Your task to perform on an android device: toggle wifi Image 0: 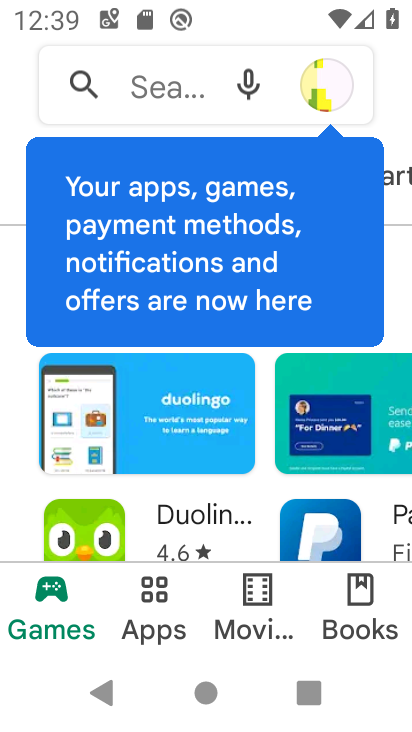
Step 0: press home button
Your task to perform on an android device: toggle wifi Image 1: 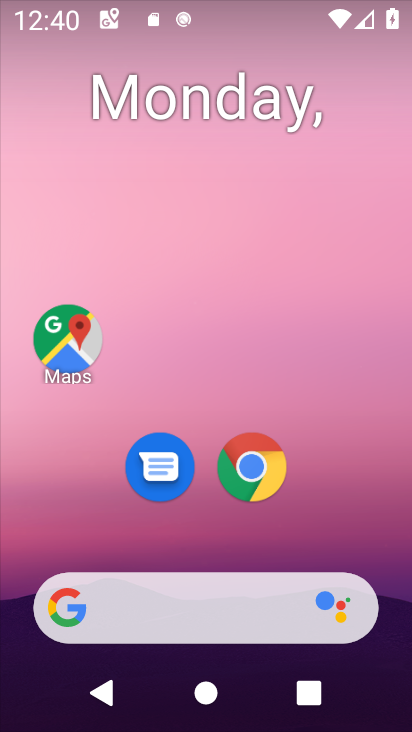
Step 1: drag from (389, 565) to (314, 27)
Your task to perform on an android device: toggle wifi Image 2: 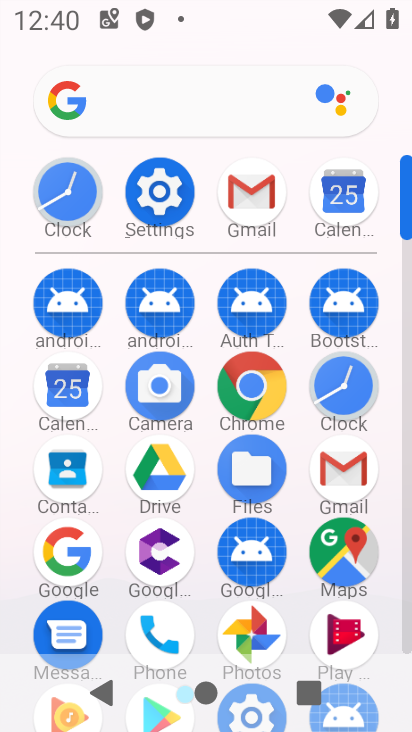
Step 2: click (407, 634)
Your task to perform on an android device: toggle wifi Image 3: 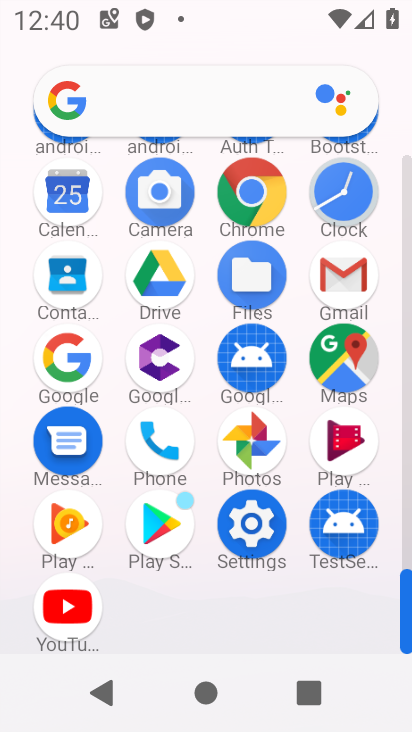
Step 3: click (251, 526)
Your task to perform on an android device: toggle wifi Image 4: 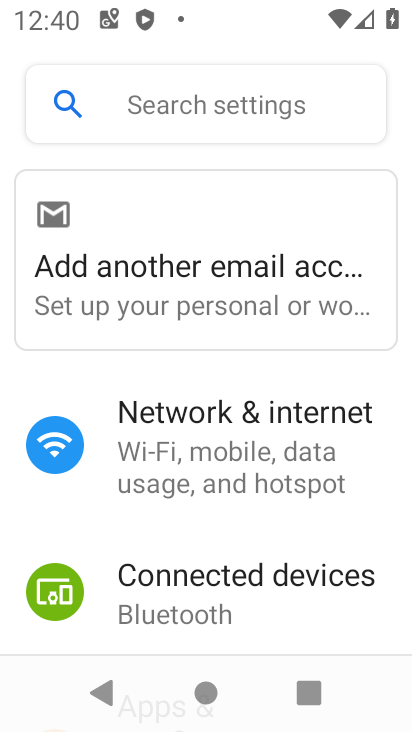
Step 4: click (206, 444)
Your task to perform on an android device: toggle wifi Image 5: 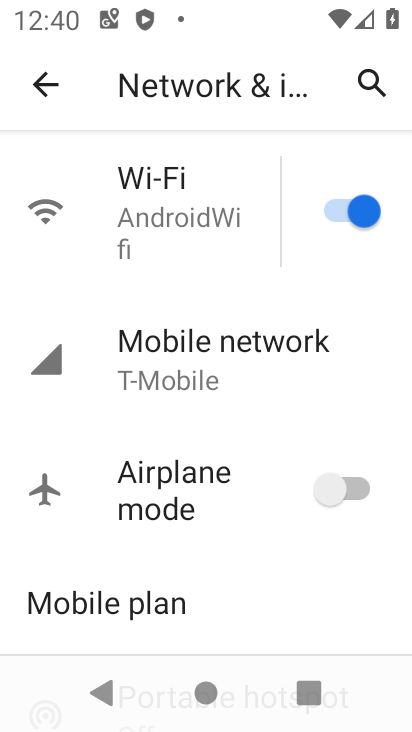
Step 5: drag from (236, 558) to (273, 175)
Your task to perform on an android device: toggle wifi Image 6: 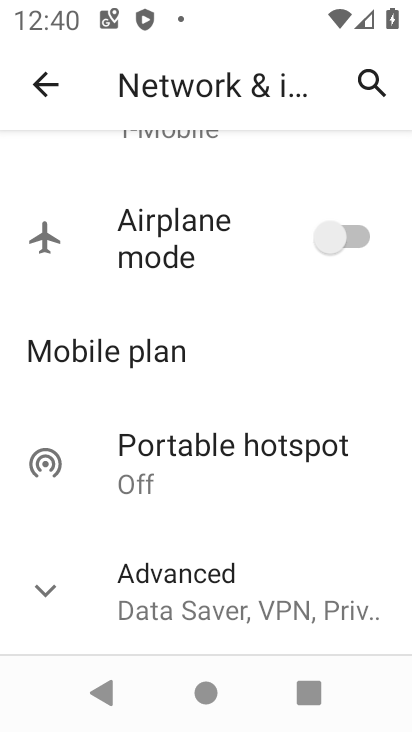
Step 6: drag from (273, 177) to (241, 433)
Your task to perform on an android device: toggle wifi Image 7: 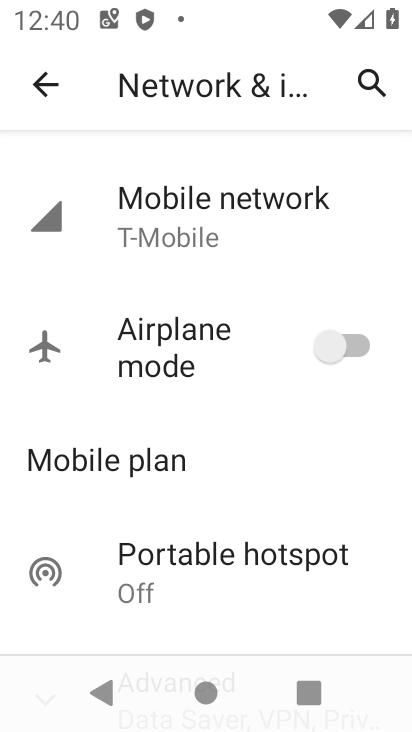
Step 7: drag from (281, 251) to (239, 454)
Your task to perform on an android device: toggle wifi Image 8: 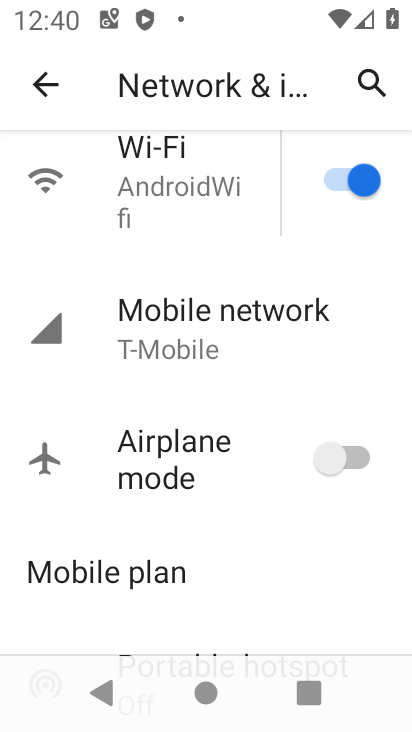
Step 8: drag from (223, 193) to (218, 411)
Your task to perform on an android device: toggle wifi Image 9: 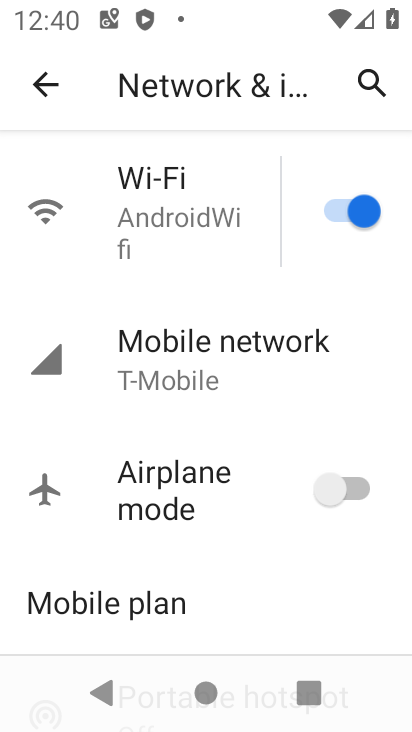
Step 9: click (329, 200)
Your task to perform on an android device: toggle wifi Image 10: 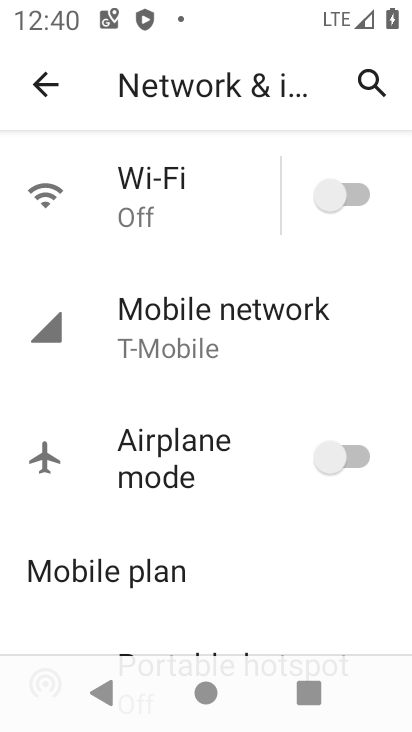
Step 10: task complete